Your task to perform on an android device: Search for duracell triple a on walmart, select the first entry, add it to the cart, then select checkout. Image 0: 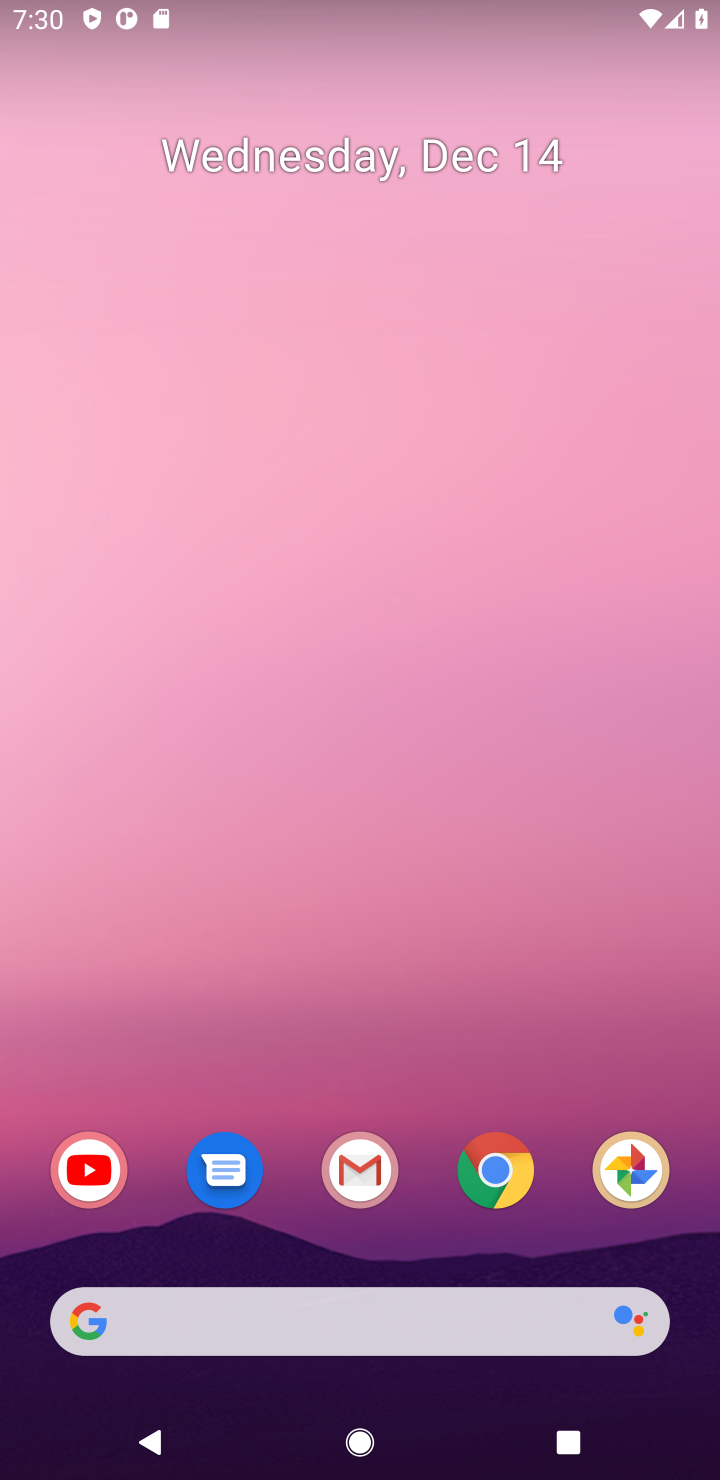
Step 0: click (507, 1165)
Your task to perform on an android device: Search for duracell triple a on walmart, select the first entry, add it to the cart, then select checkout. Image 1: 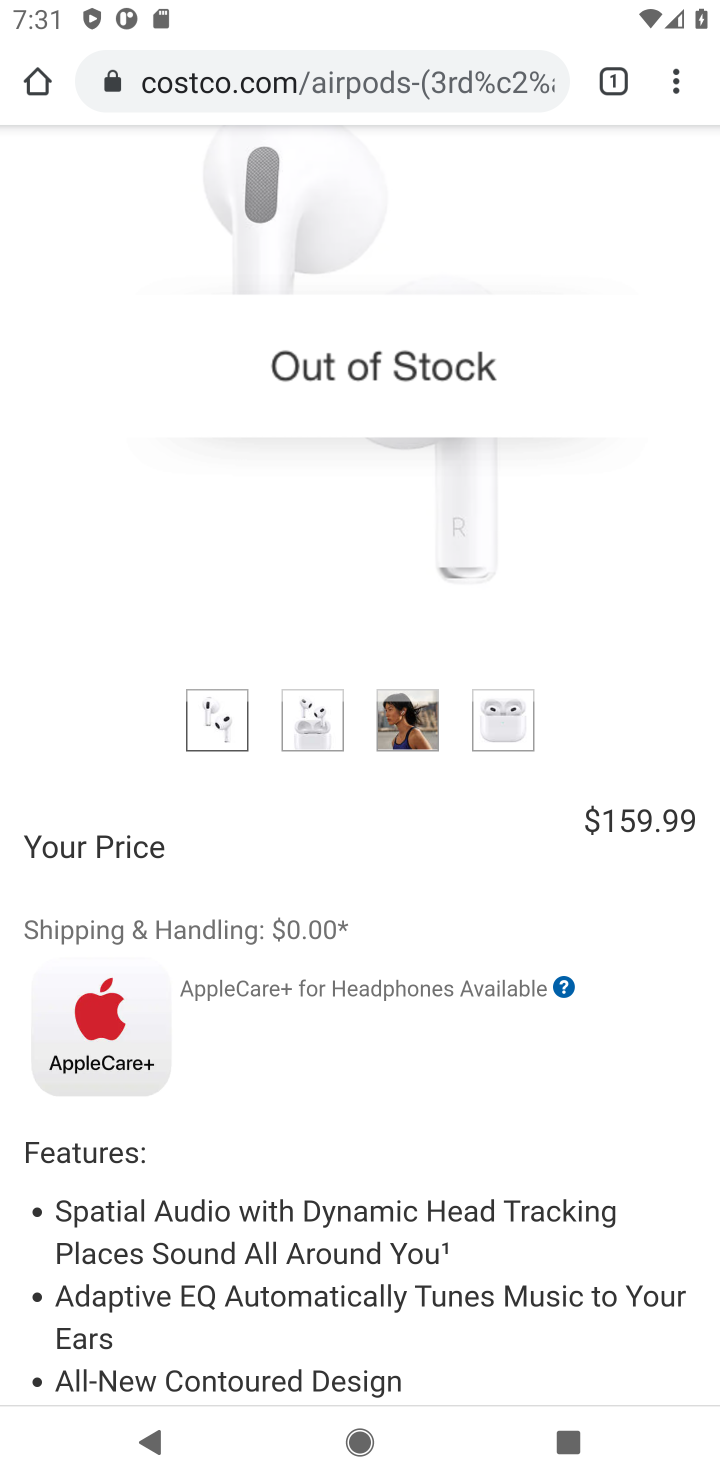
Step 1: click (317, 85)
Your task to perform on an android device: Search for duracell triple a on walmart, select the first entry, add it to the cart, then select checkout. Image 2: 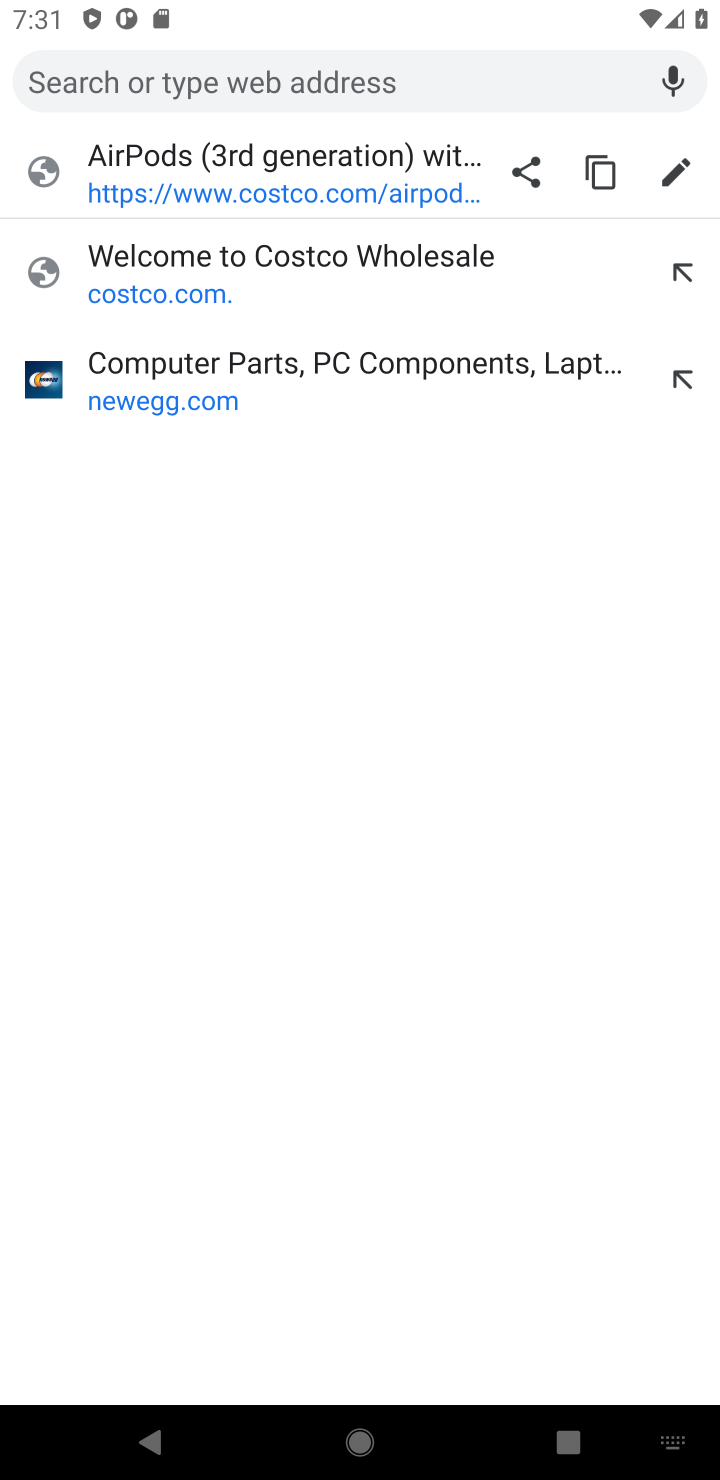
Step 2: type "walmart"
Your task to perform on an android device: Search for duracell triple a on walmart, select the first entry, add it to the cart, then select checkout. Image 3: 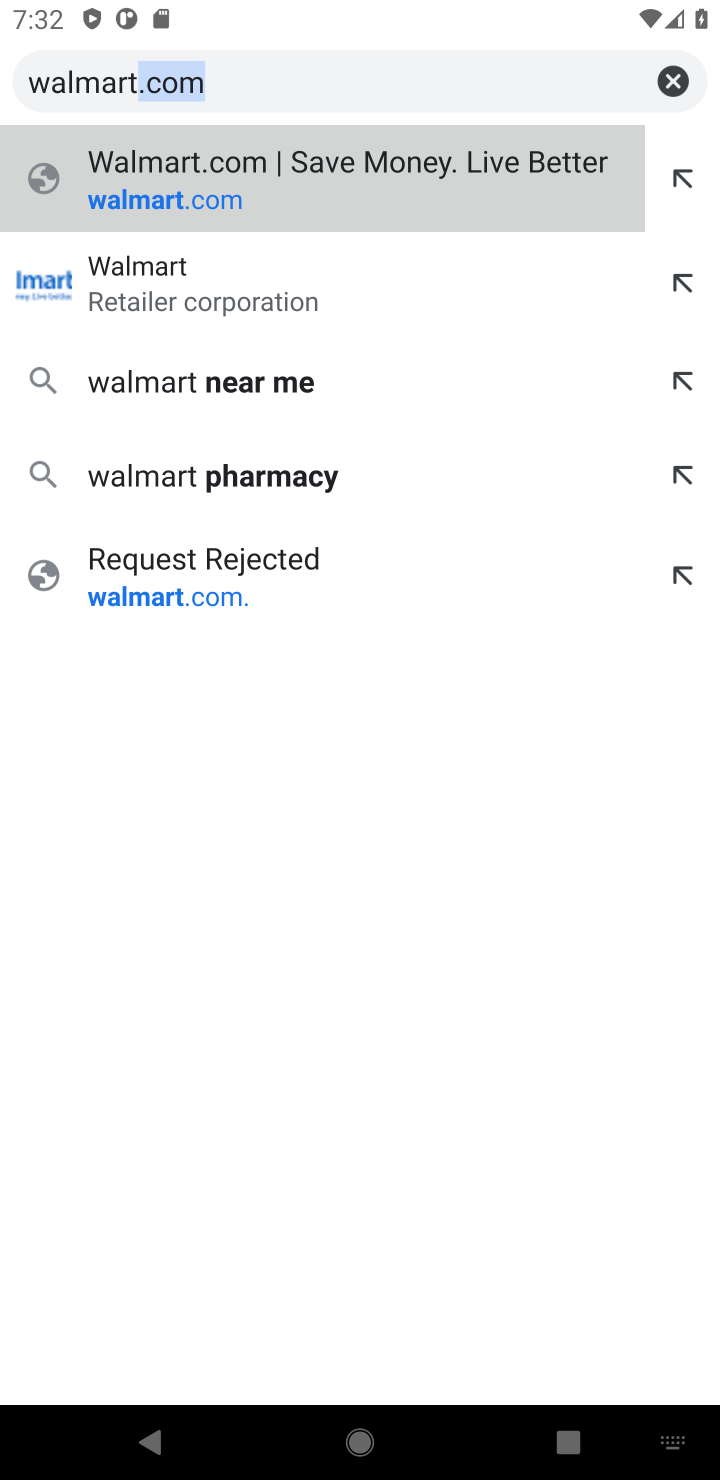
Step 3: click (267, 184)
Your task to perform on an android device: Search for duracell triple a on walmart, select the first entry, add it to the cart, then select checkout. Image 4: 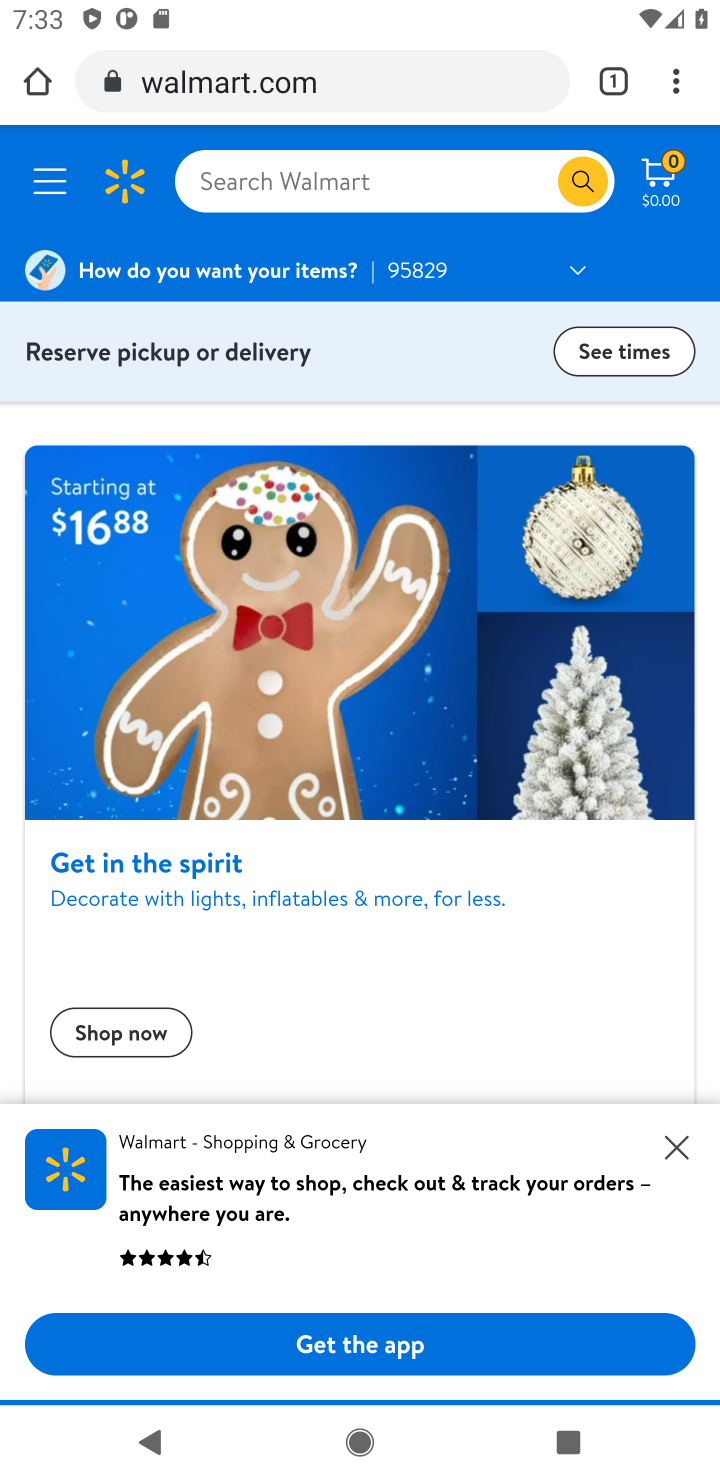
Step 4: click (332, 170)
Your task to perform on an android device: Search for duracell triple a on walmart, select the first entry, add it to the cart, then select checkout. Image 5: 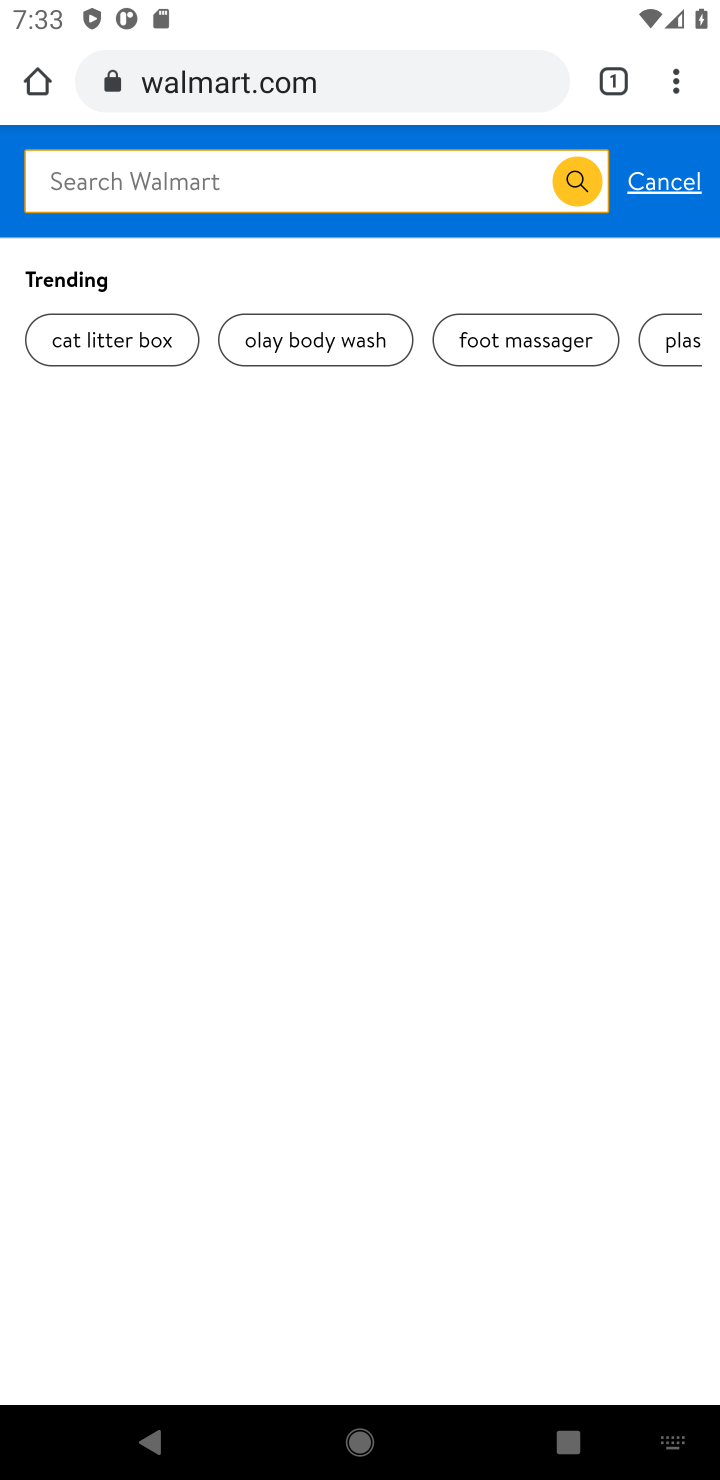
Step 5: type "duracell triple a"
Your task to perform on an android device: Search for duracell triple a on walmart, select the first entry, add it to the cart, then select checkout. Image 6: 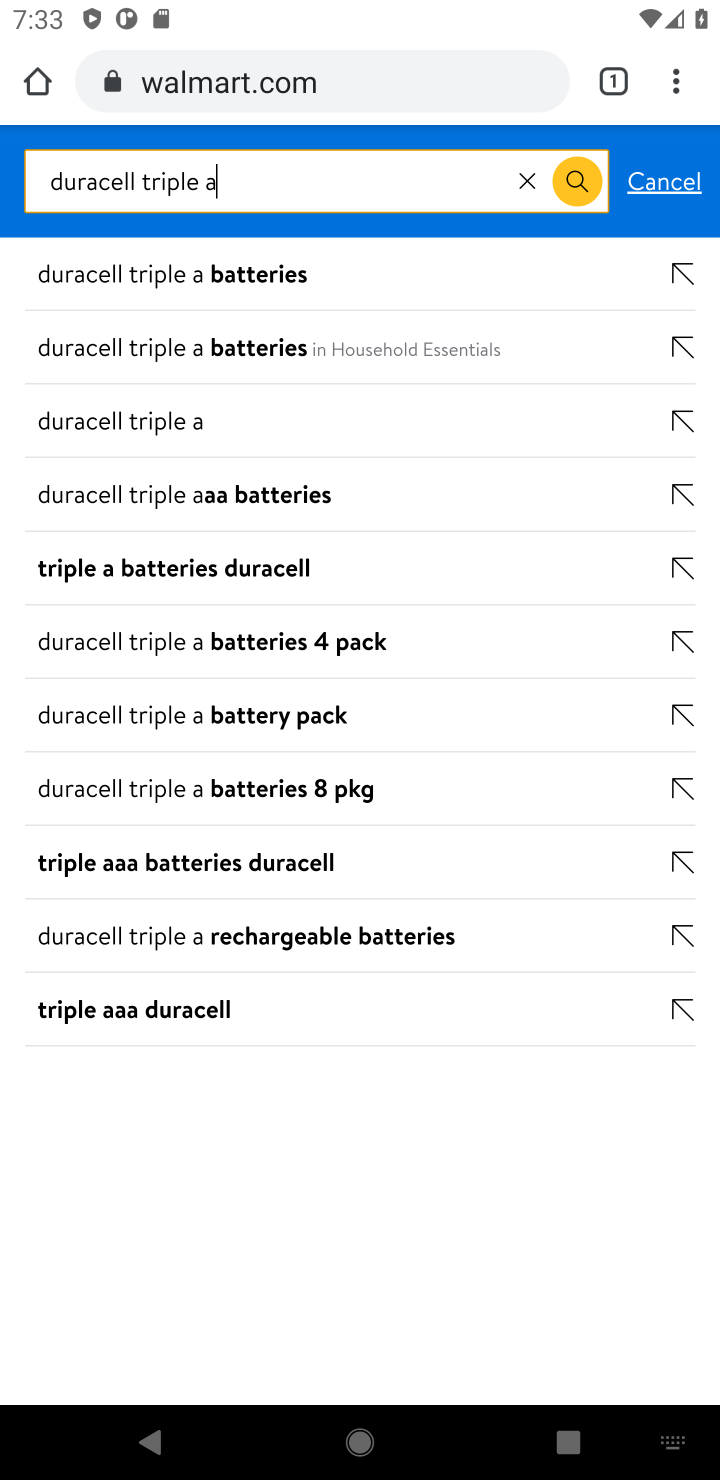
Step 6: click (153, 269)
Your task to perform on an android device: Search for duracell triple a on walmart, select the first entry, add it to the cart, then select checkout. Image 7: 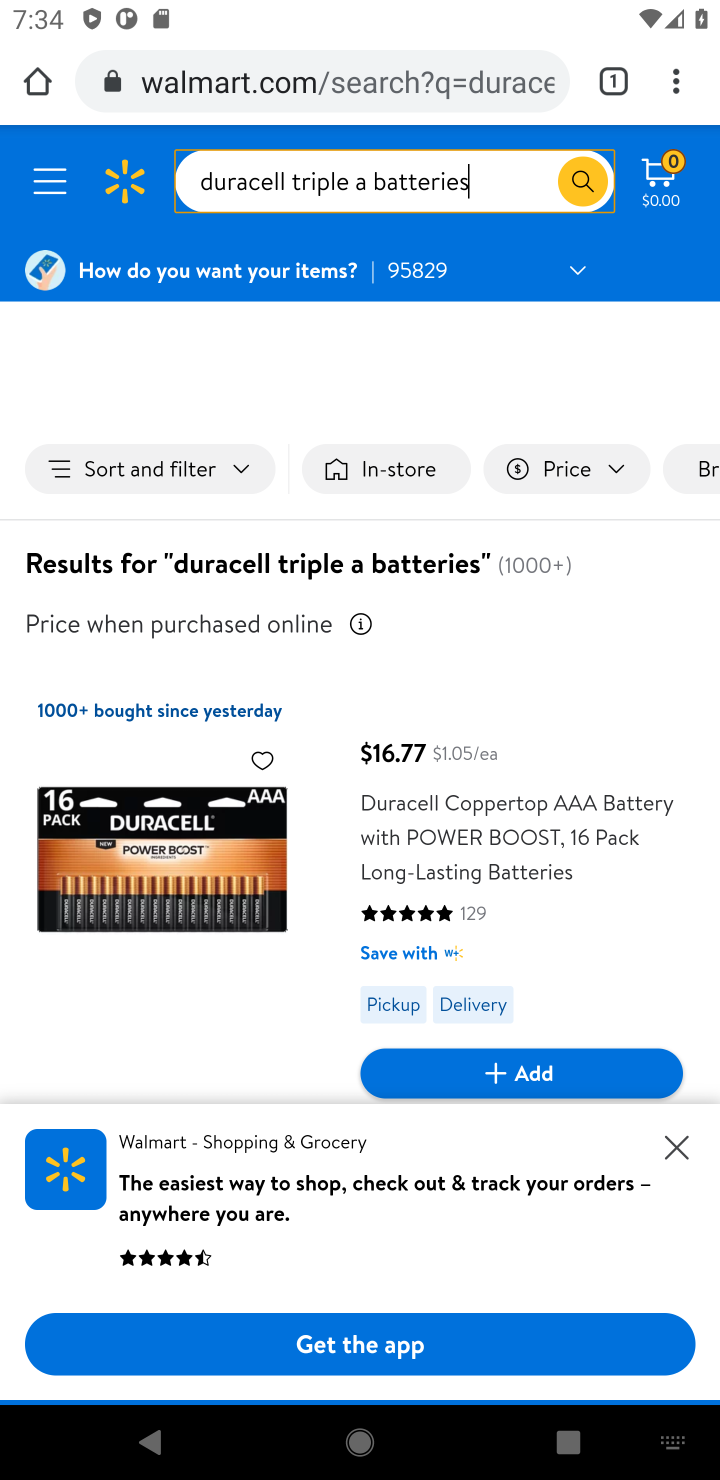
Step 7: click (543, 1078)
Your task to perform on an android device: Search for duracell triple a on walmart, select the first entry, add it to the cart, then select checkout. Image 8: 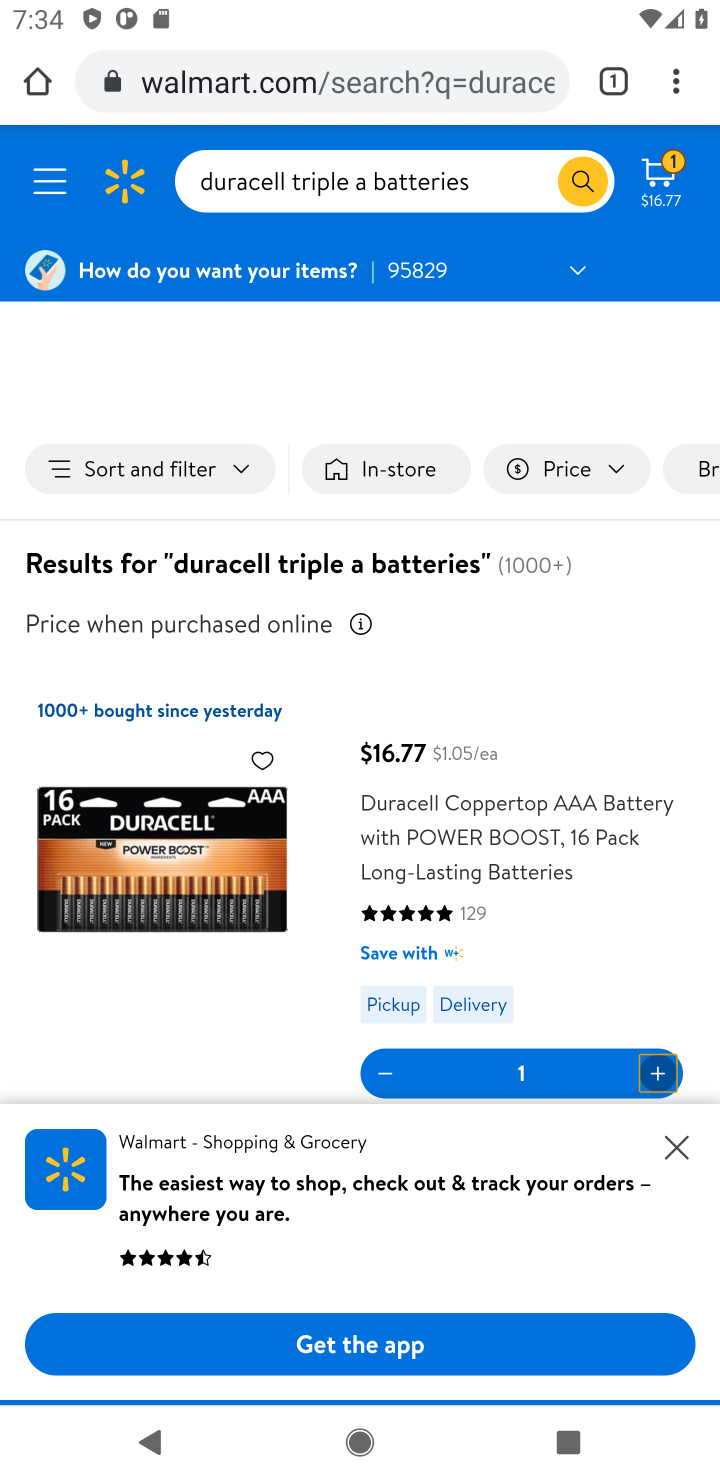
Step 8: click (659, 181)
Your task to perform on an android device: Search for duracell triple a on walmart, select the first entry, add it to the cart, then select checkout. Image 9: 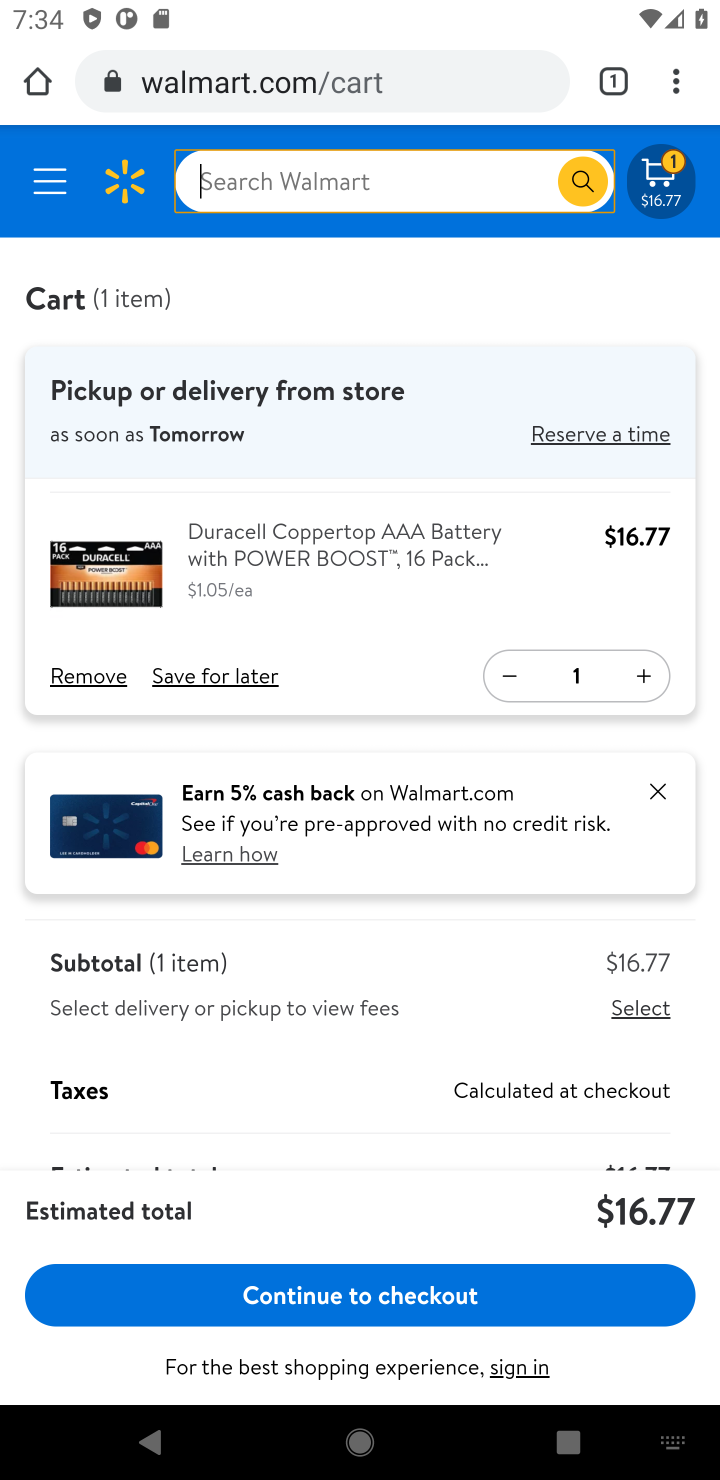
Step 9: click (353, 1301)
Your task to perform on an android device: Search for duracell triple a on walmart, select the first entry, add it to the cart, then select checkout. Image 10: 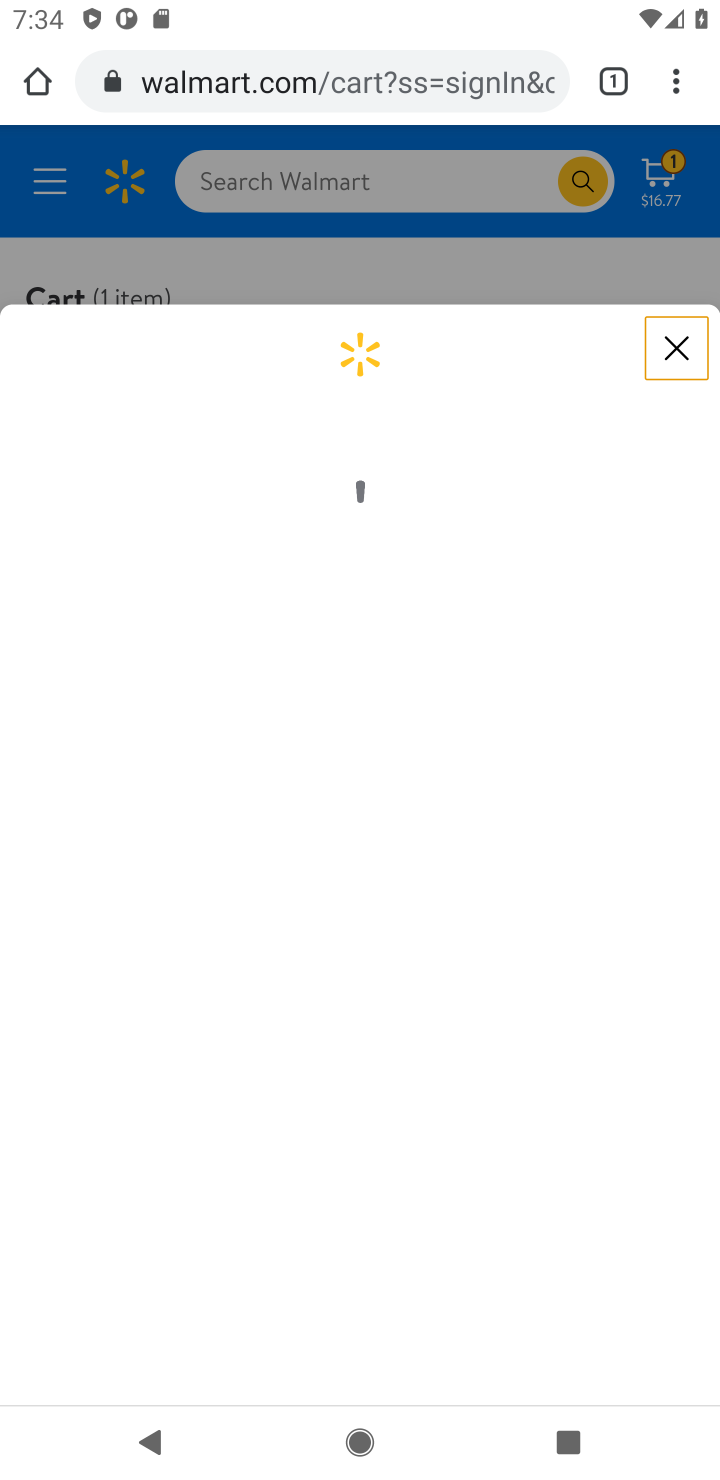
Step 10: task complete